Your task to perform on an android device: Open Google Chrome Image 0: 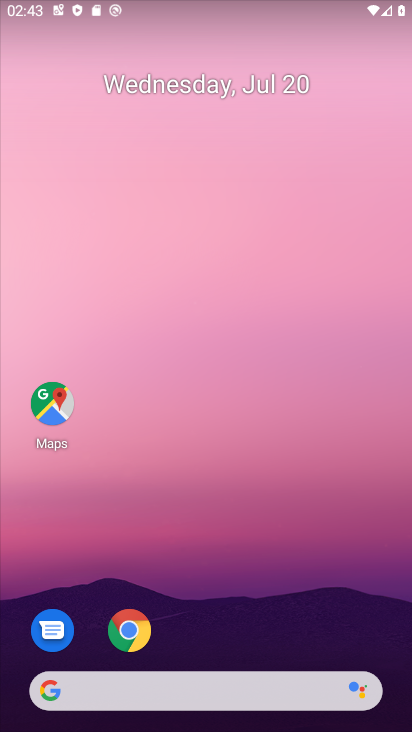
Step 0: drag from (363, 579) to (363, 140)
Your task to perform on an android device: Open Google Chrome Image 1: 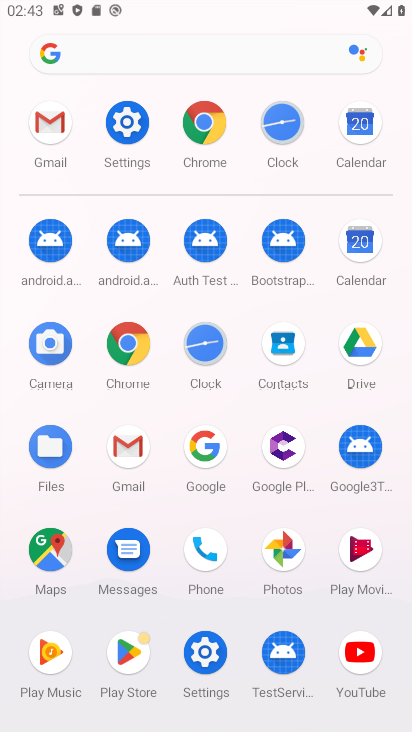
Step 1: click (130, 345)
Your task to perform on an android device: Open Google Chrome Image 2: 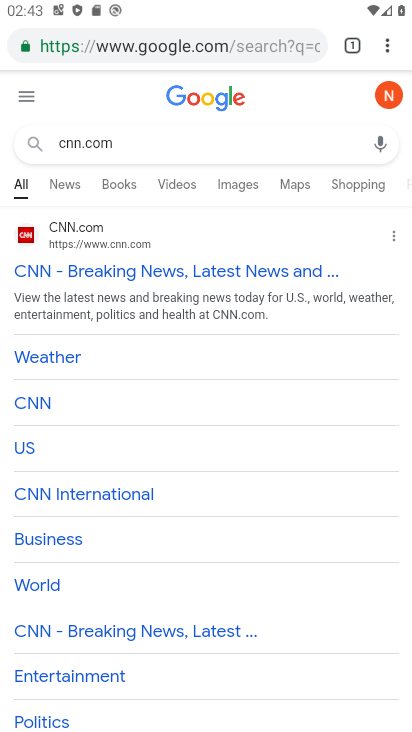
Step 2: task complete